Your task to perform on an android device: turn off airplane mode Image 0: 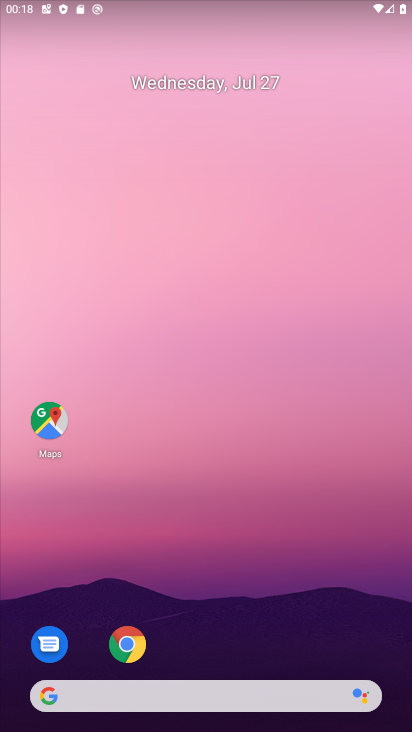
Step 0: click (219, 178)
Your task to perform on an android device: turn off airplane mode Image 1: 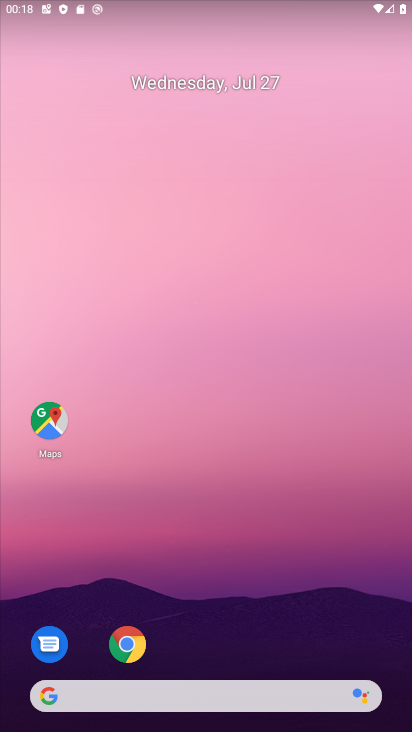
Step 1: drag from (167, 251) to (318, 73)
Your task to perform on an android device: turn off airplane mode Image 2: 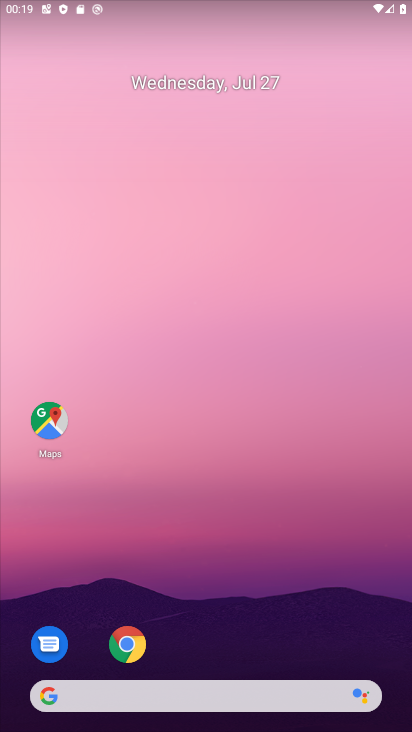
Step 2: drag from (277, 332) to (200, 2)
Your task to perform on an android device: turn off airplane mode Image 3: 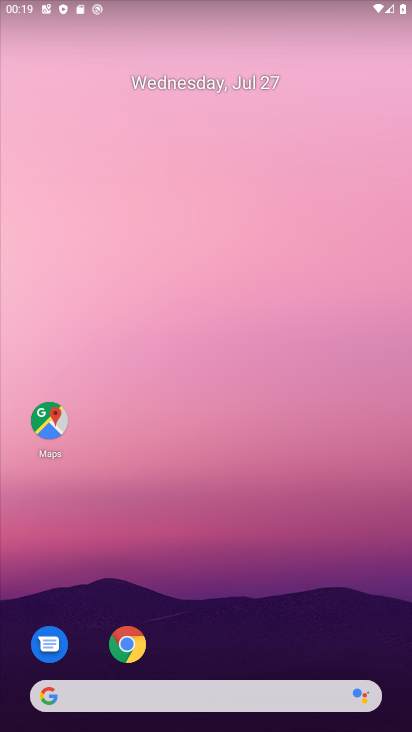
Step 3: drag from (243, 389) to (206, 17)
Your task to perform on an android device: turn off airplane mode Image 4: 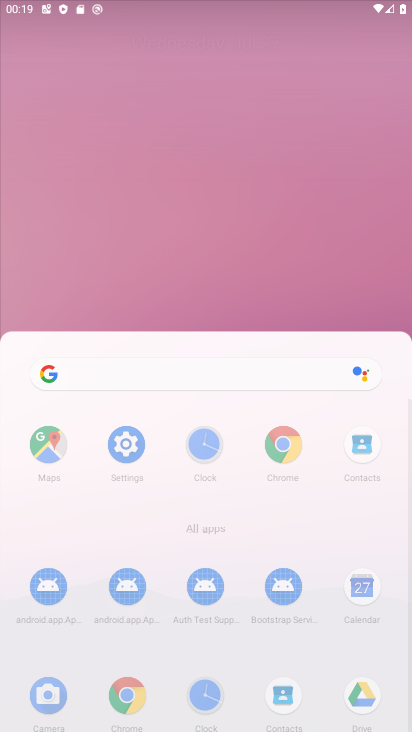
Step 4: click (115, 33)
Your task to perform on an android device: turn off airplane mode Image 5: 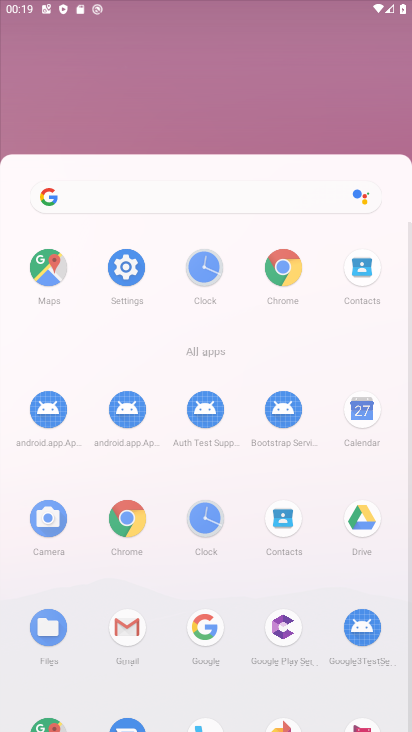
Step 5: drag from (191, 321) to (183, 27)
Your task to perform on an android device: turn off airplane mode Image 6: 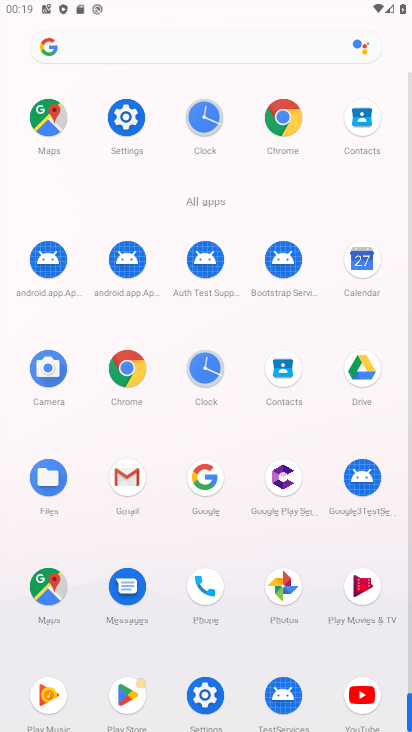
Step 6: drag from (150, 84) to (15, 118)
Your task to perform on an android device: turn off airplane mode Image 7: 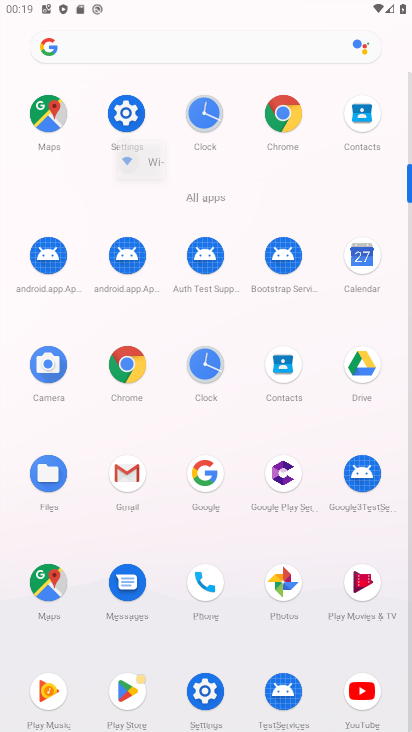
Step 7: click (114, 106)
Your task to perform on an android device: turn off airplane mode Image 8: 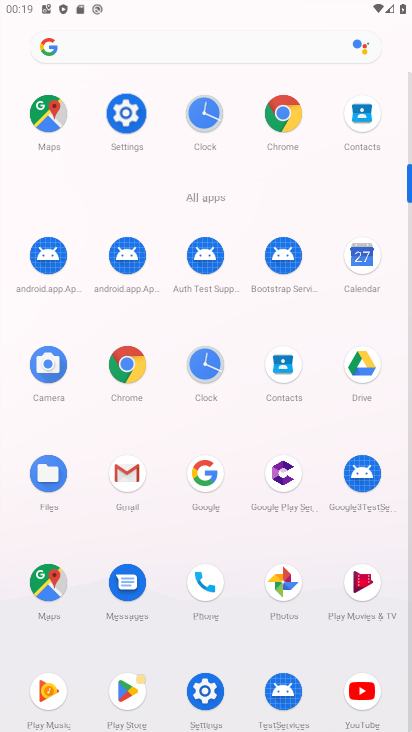
Step 8: click (116, 103)
Your task to perform on an android device: turn off airplane mode Image 9: 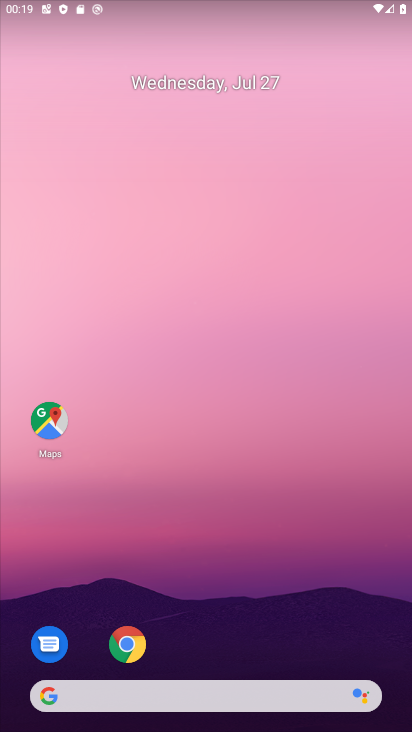
Step 9: drag from (229, 269) to (218, 161)
Your task to perform on an android device: turn off airplane mode Image 10: 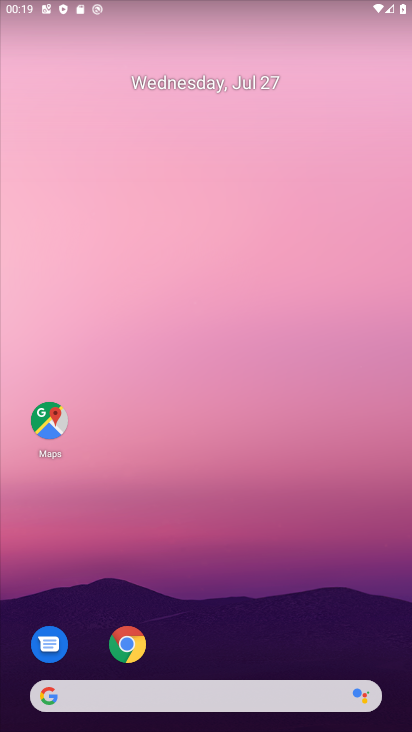
Step 10: drag from (266, 578) to (205, 1)
Your task to perform on an android device: turn off airplane mode Image 11: 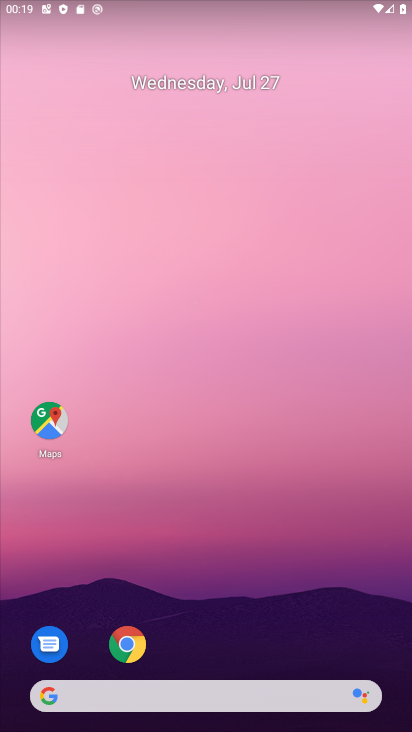
Step 11: drag from (226, 690) to (167, 39)
Your task to perform on an android device: turn off airplane mode Image 12: 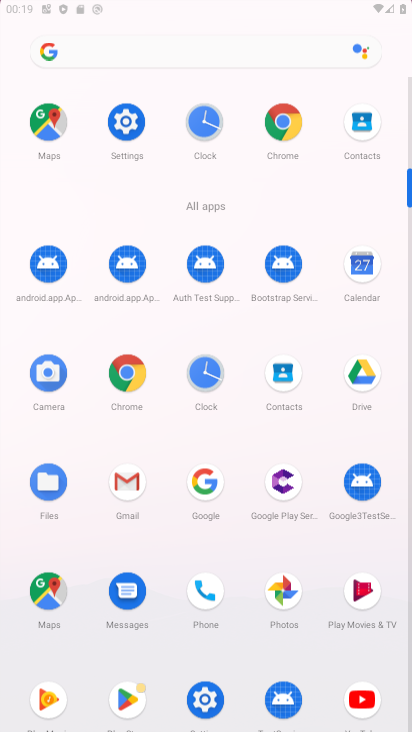
Step 12: drag from (186, 496) to (110, 61)
Your task to perform on an android device: turn off airplane mode Image 13: 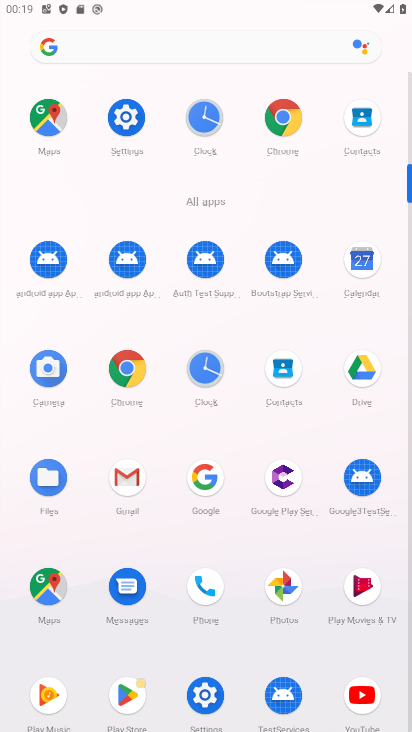
Step 13: drag from (156, 420) to (156, 95)
Your task to perform on an android device: turn off airplane mode Image 14: 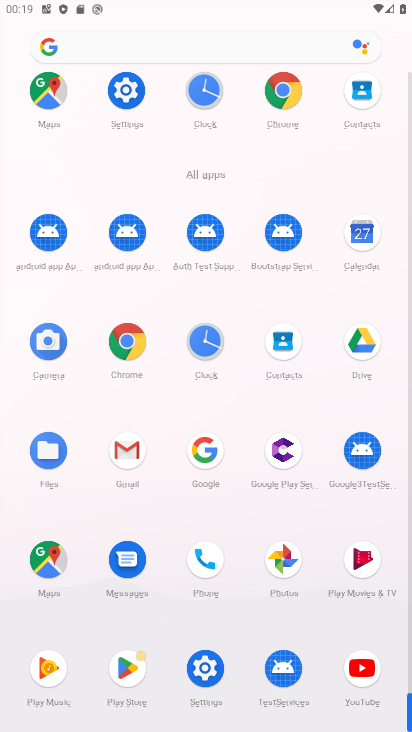
Step 14: click (130, 91)
Your task to perform on an android device: turn off airplane mode Image 15: 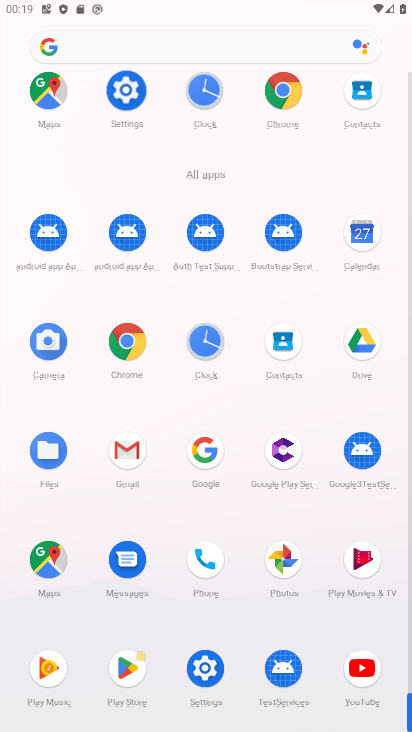
Step 15: click (117, 98)
Your task to perform on an android device: turn off airplane mode Image 16: 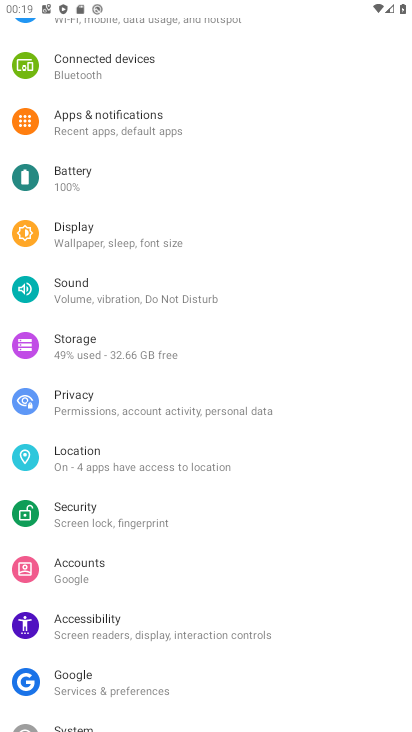
Step 16: drag from (133, 72) to (160, 368)
Your task to perform on an android device: turn off airplane mode Image 17: 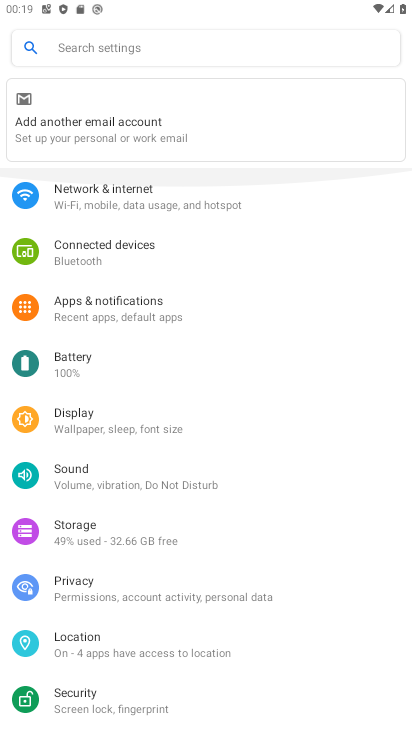
Step 17: drag from (114, 134) to (150, 355)
Your task to perform on an android device: turn off airplane mode Image 18: 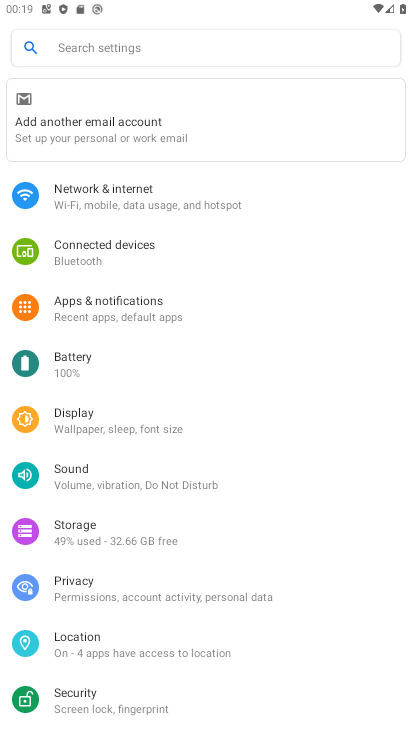
Step 18: click (118, 192)
Your task to perform on an android device: turn off airplane mode Image 19: 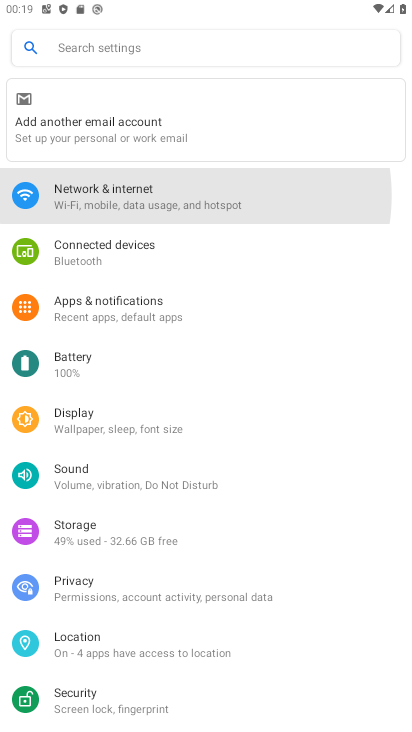
Step 19: click (121, 192)
Your task to perform on an android device: turn off airplane mode Image 20: 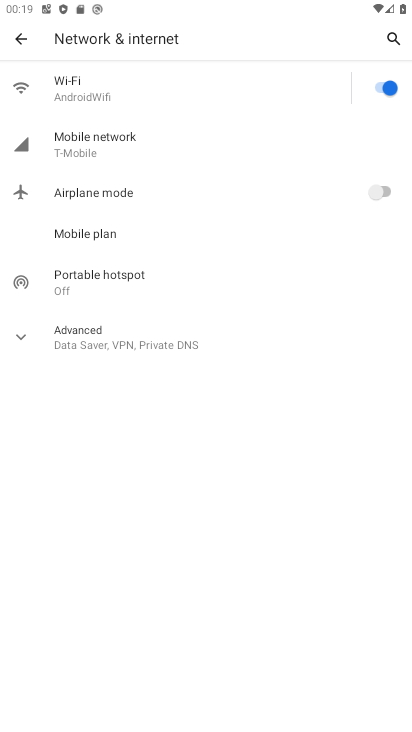
Step 20: task complete